Your task to perform on an android device: Go to display settings Image 0: 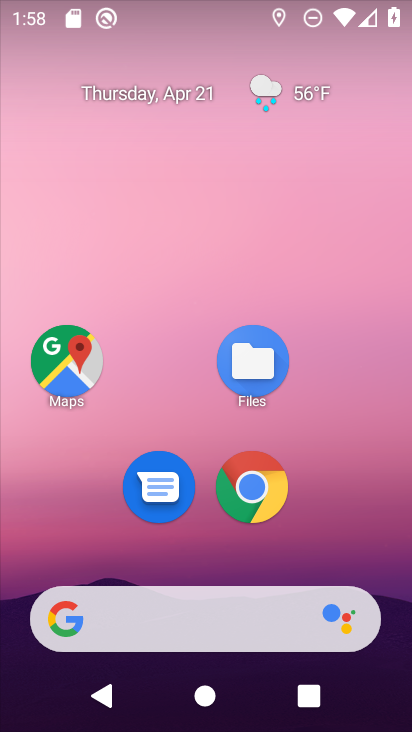
Step 0: drag from (377, 546) to (364, 119)
Your task to perform on an android device: Go to display settings Image 1: 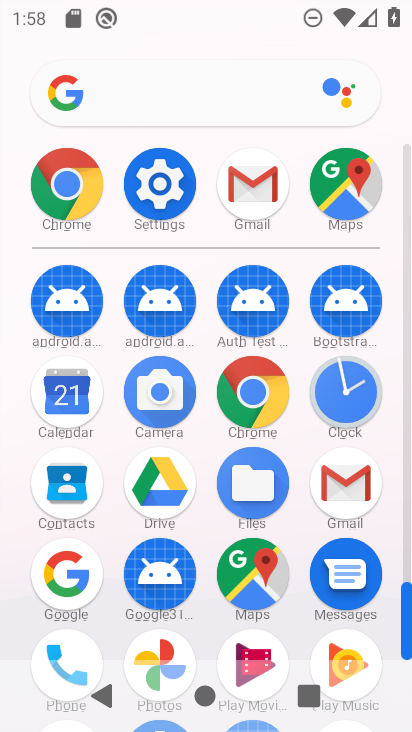
Step 1: click (161, 197)
Your task to perform on an android device: Go to display settings Image 2: 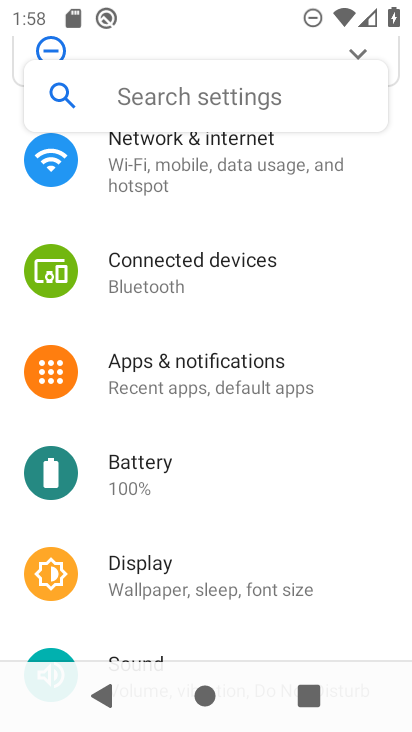
Step 2: click (240, 581)
Your task to perform on an android device: Go to display settings Image 3: 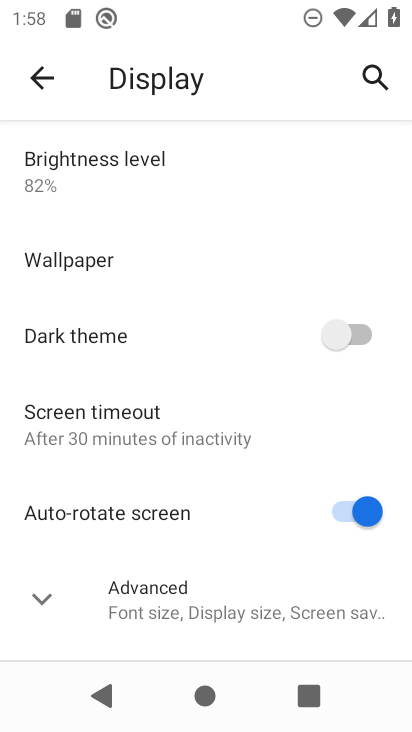
Step 3: task complete